Your task to perform on an android device: visit the assistant section in the google photos Image 0: 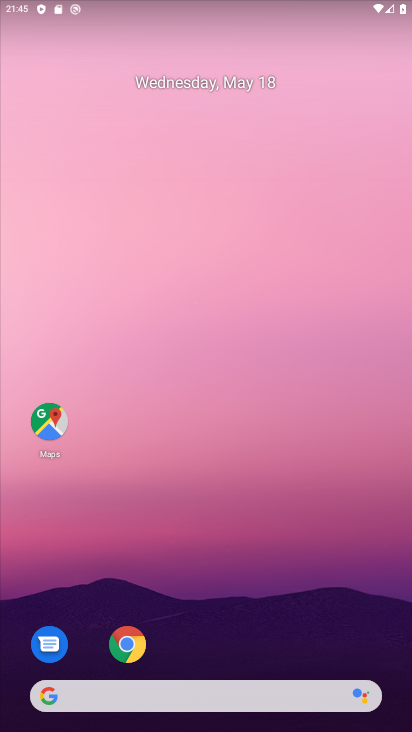
Step 0: drag from (337, 588) to (287, 242)
Your task to perform on an android device: visit the assistant section in the google photos Image 1: 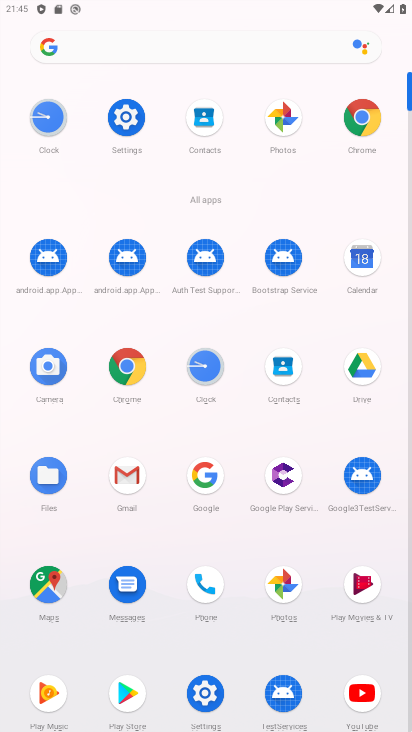
Step 1: click (288, 585)
Your task to perform on an android device: visit the assistant section in the google photos Image 2: 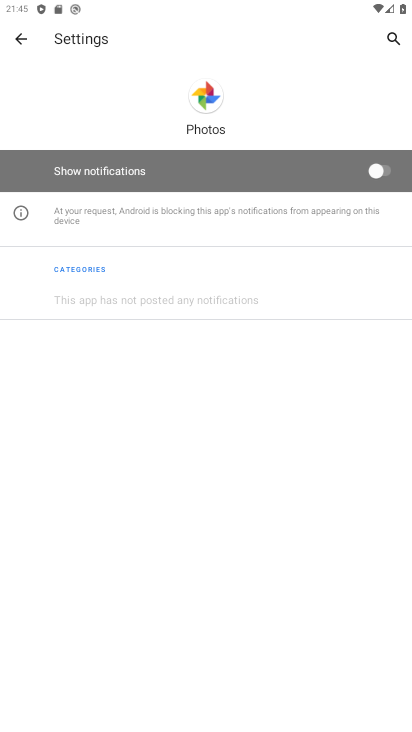
Step 2: click (24, 35)
Your task to perform on an android device: visit the assistant section in the google photos Image 3: 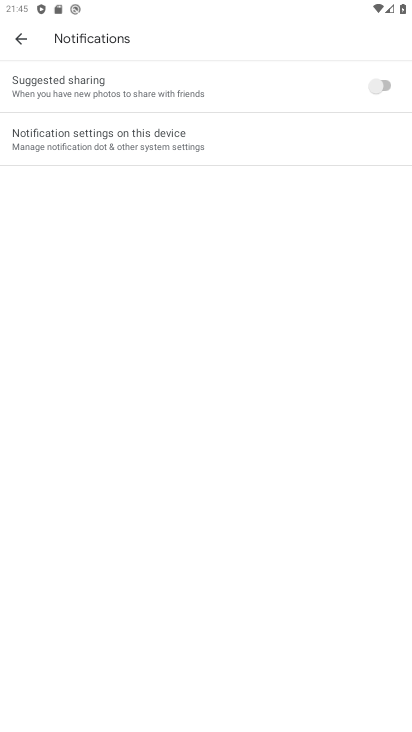
Step 3: click (24, 35)
Your task to perform on an android device: visit the assistant section in the google photos Image 4: 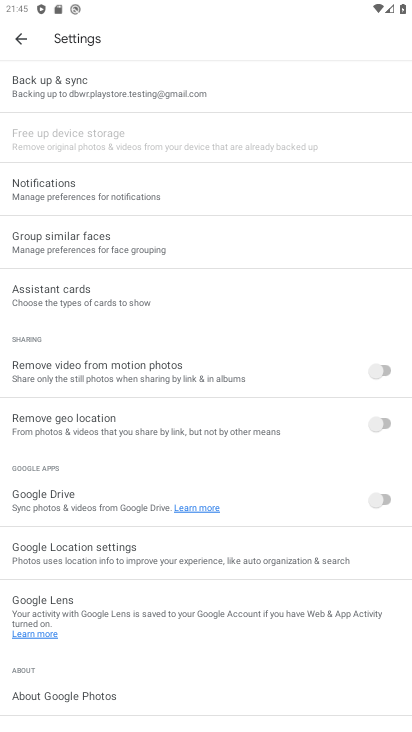
Step 4: drag from (265, 581) to (282, 175)
Your task to perform on an android device: visit the assistant section in the google photos Image 5: 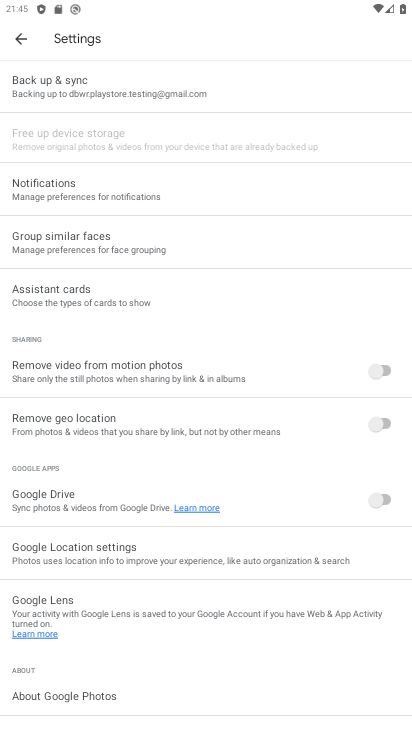
Step 5: click (37, 40)
Your task to perform on an android device: visit the assistant section in the google photos Image 6: 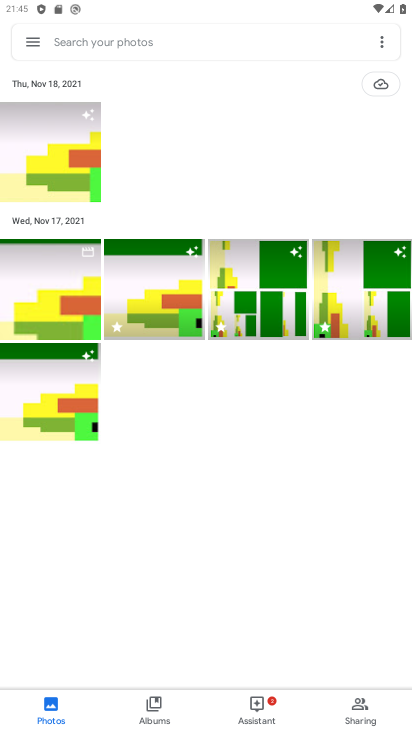
Step 6: click (265, 701)
Your task to perform on an android device: visit the assistant section in the google photos Image 7: 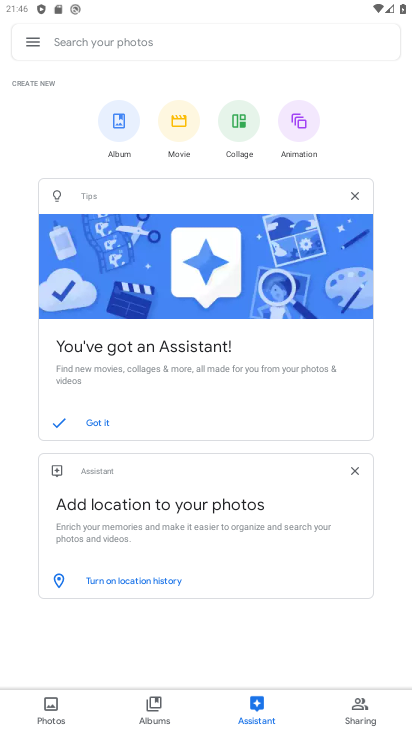
Step 7: task complete